Your task to perform on an android device: What's on my calendar tomorrow? Image 0: 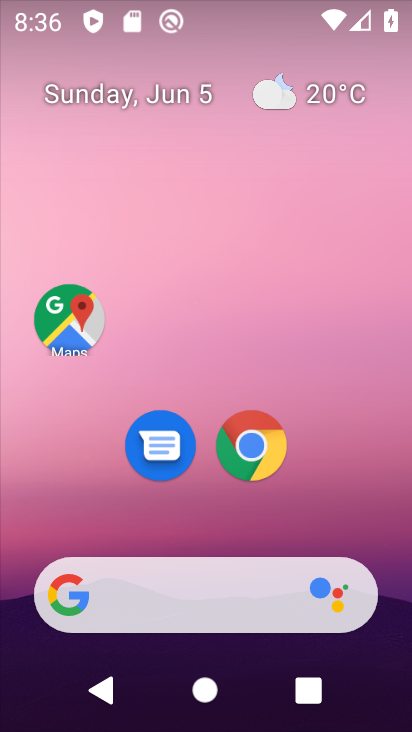
Step 0: drag from (288, 597) to (231, 16)
Your task to perform on an android device: What's on my calendar tomorrow? Image 1: 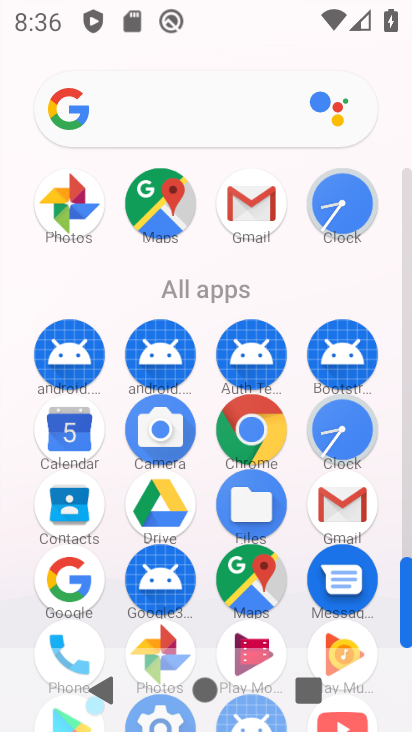
Step 1: click (80, 440)
Your task to perform on an android device: What's on my calendar tomorrow? Image 2: 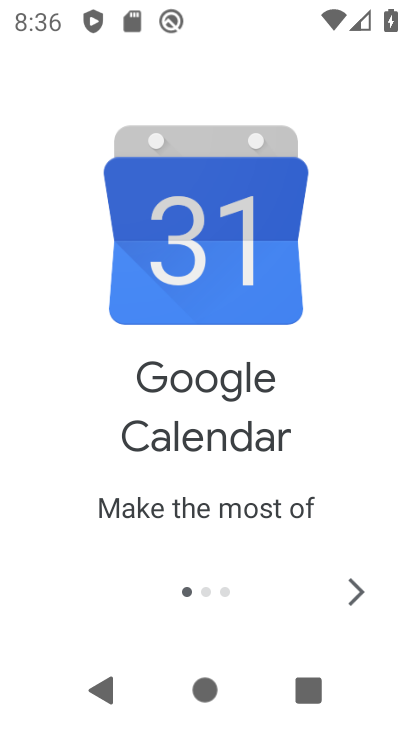
Step 2: click (346, 600)
Your task to perform on an android device: What's on my calendar tomorrow? Image 3: 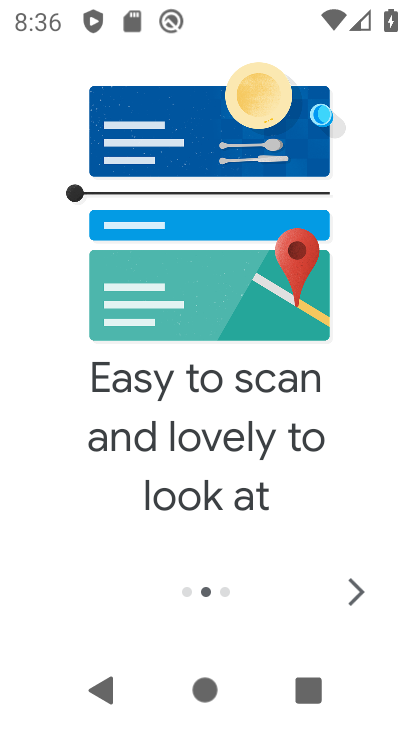
Step 3: click (346, 600)
Your task to perform on an android device: What's on my calendar tomorrow? Image 4: 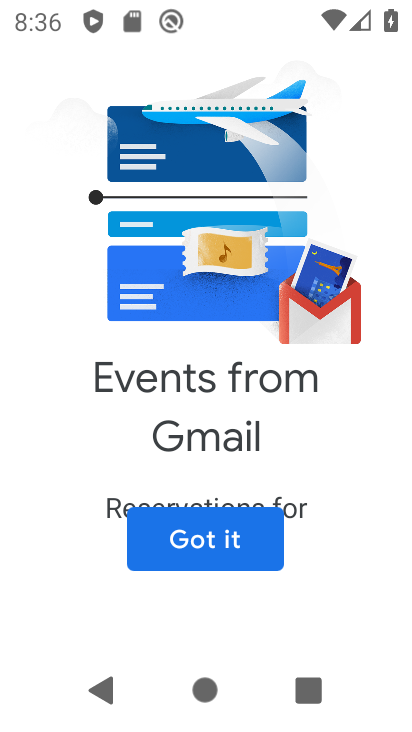
Step 4: click (229, 563)
Your task to perform on an android device: What's on my calendar tomorrow? Image 5: 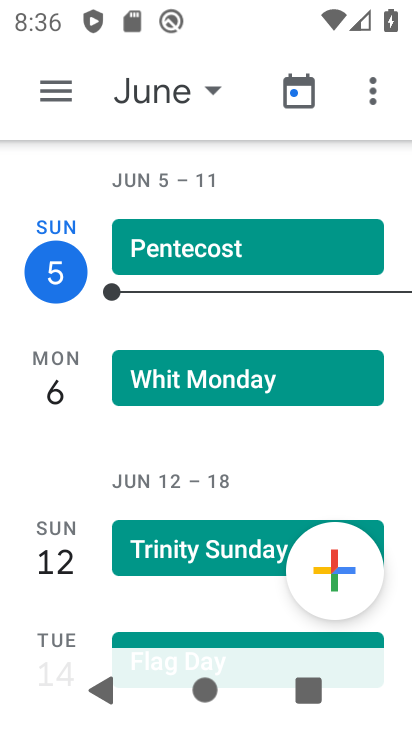
Step 5: click (210, 92)
Your task to perform on an android device: What's on my calendar tomorrow? Image 6: 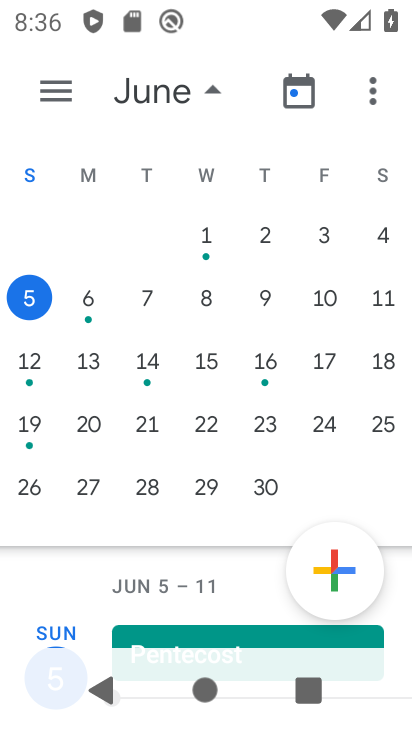
Step 6: click (152, 303)
Your task to perform on an android device: What's on my calendar tomorrow? Image 7: 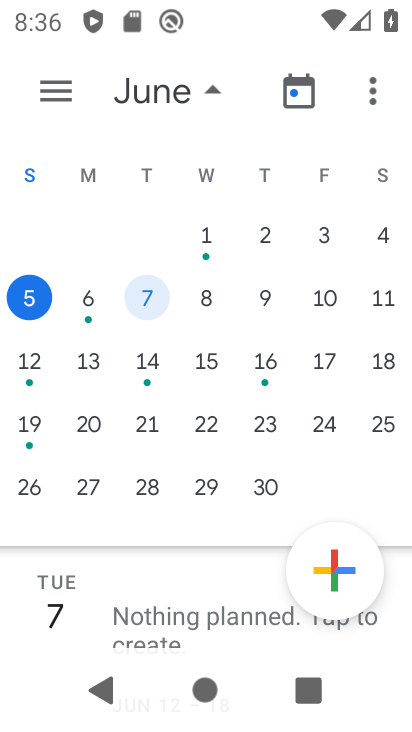
Step 7: task complete